Your task to perform on an android device: What is the news today? Image 0: 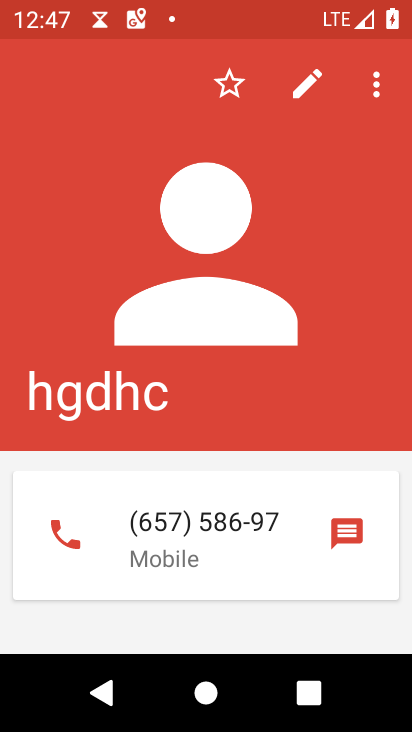
Step 0: press home button
Your task to perform on an android device: What is the news today? Image 1: 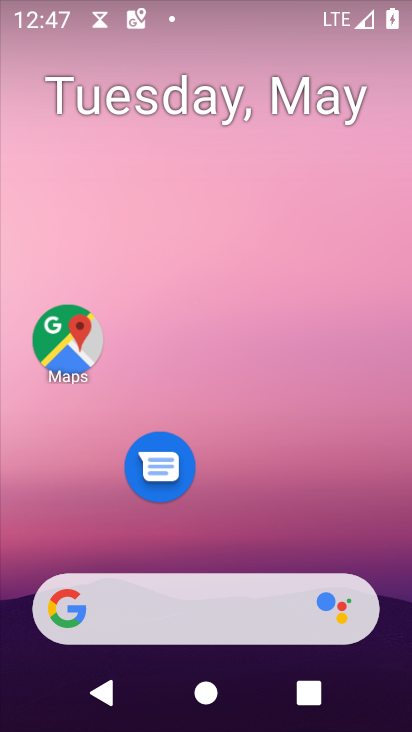
Step 1: click (180, 600)
Your task to perform on an android device: What is the news today? Image 2: 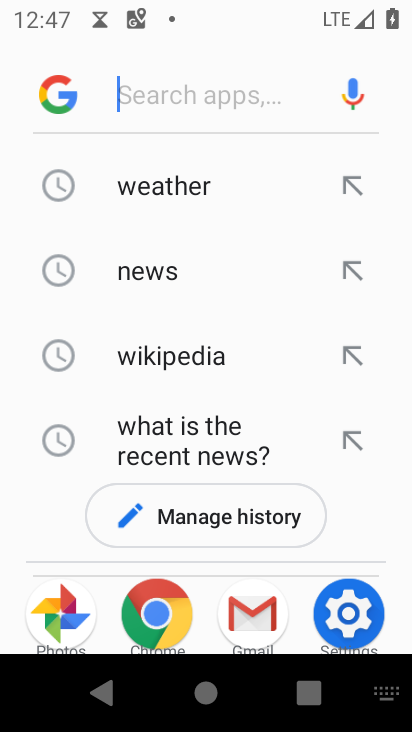
Step 2: type "news today"
Your task to perform on an android device: What is the news today? Image 3: 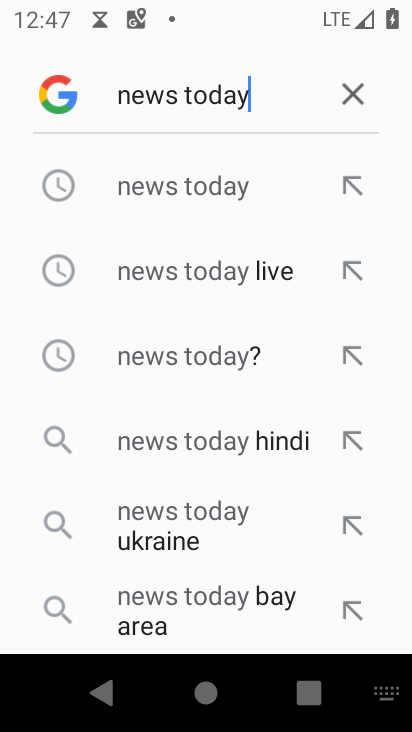
Step 3: click (210, 189)
Your task to perform on an android device: What is the news today? Image 4: 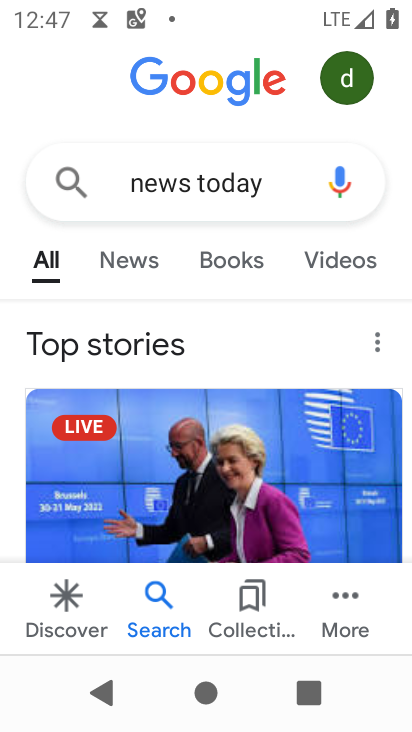
Step 4: click (136, 263)
Your task to perform on an android device: What is the news today? Image 5: 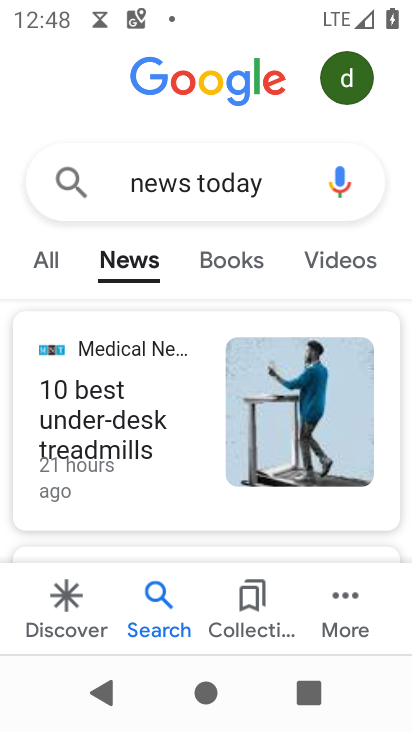
Step 5: task complete